Your task to perform on an android device: Open the web browser Image 0: 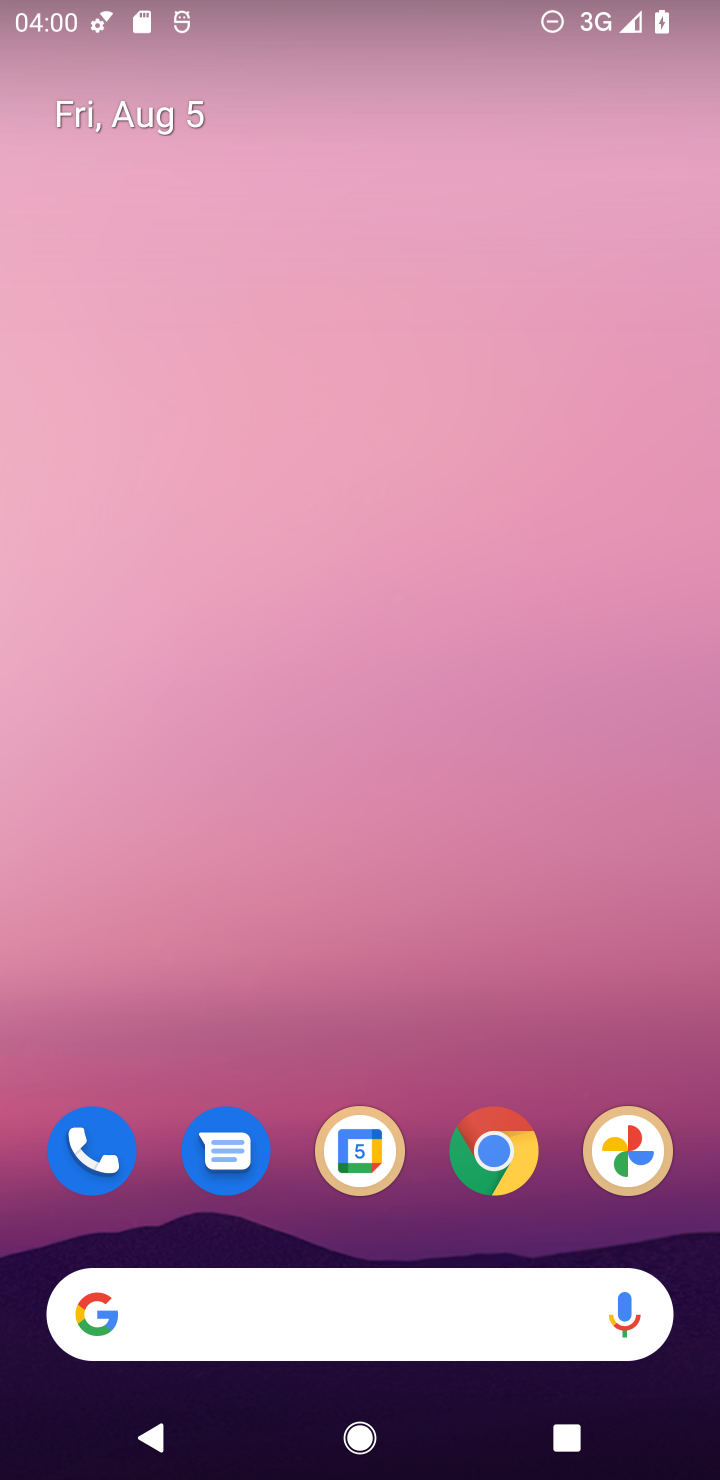
Step 0: click (488, 1140)
Your task to perform on an android device: Open the web browser Image 1: 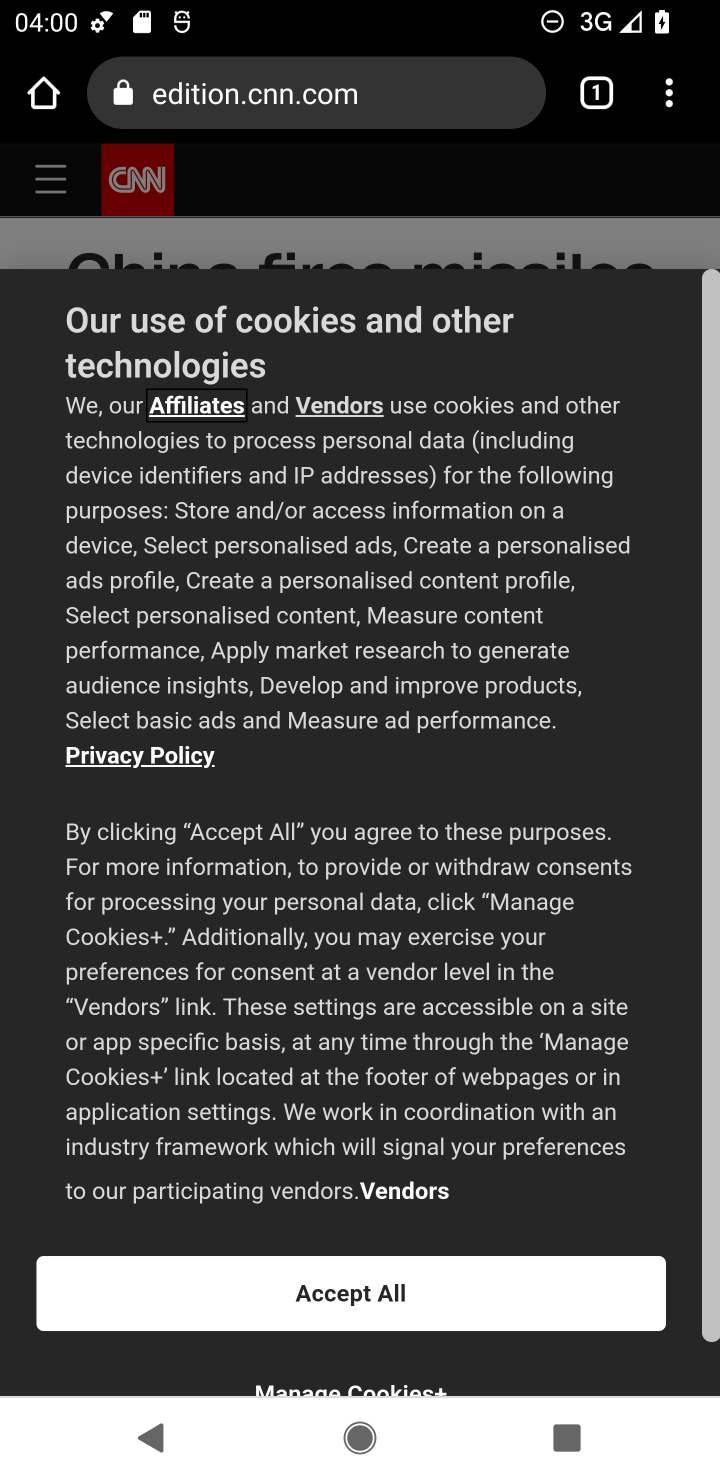
Step 1: task complete